Your task to perform on an android device: Open Google Chrome and open the bookmarks view Image 0: 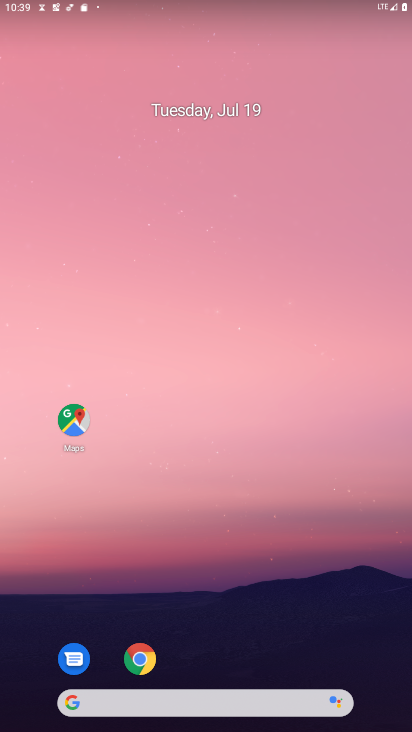
Step 0: drag from (195, 666) to (328, 77)
Your task to perform on an android device: Open Google Chrome and open the bookmarks view Image 1: 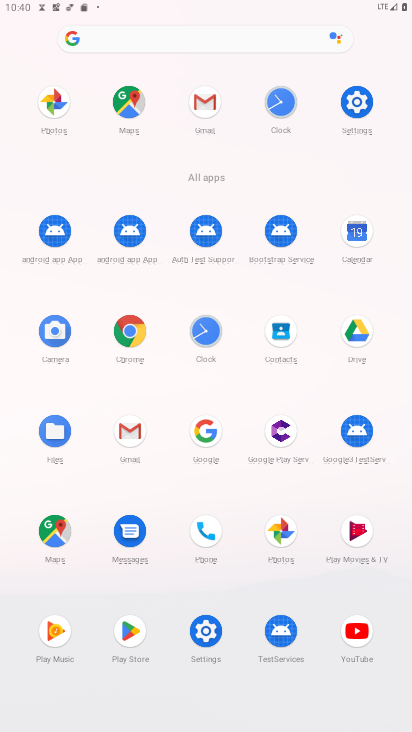
Step 1: click (126, 328)
Your task to perform on an android device: Open Google Chrome and open the bookmarks view Image 2: 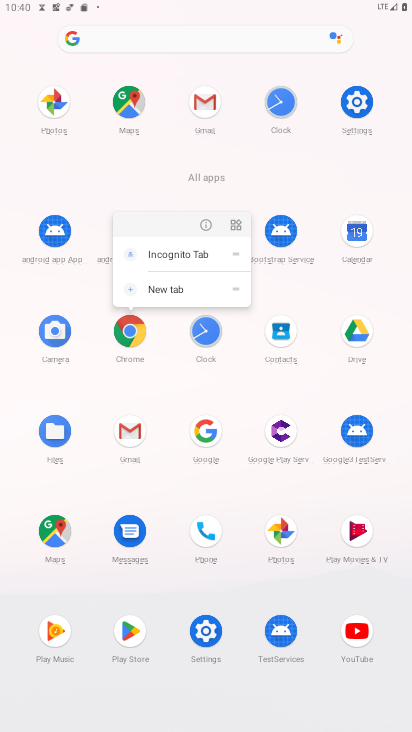
Step 2: click (203, 224)
Your task to perform on an android device: Open Google Chrome and open the bookmarks view Image 3: 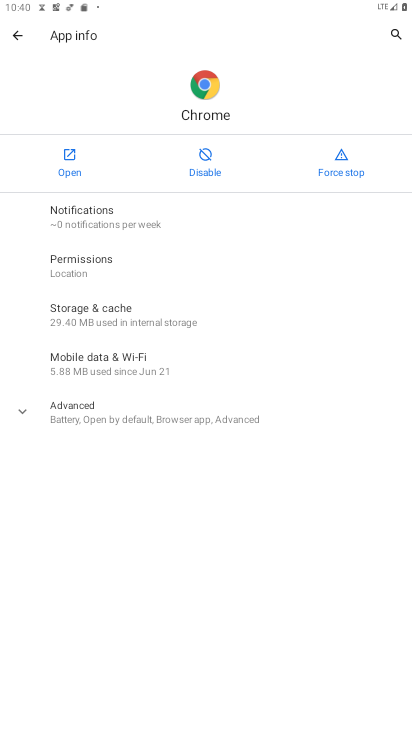
Step 3: click (67, 161)
Your task to perform on an android device: Open Google Chrome and open the bookmarks view Image 4: 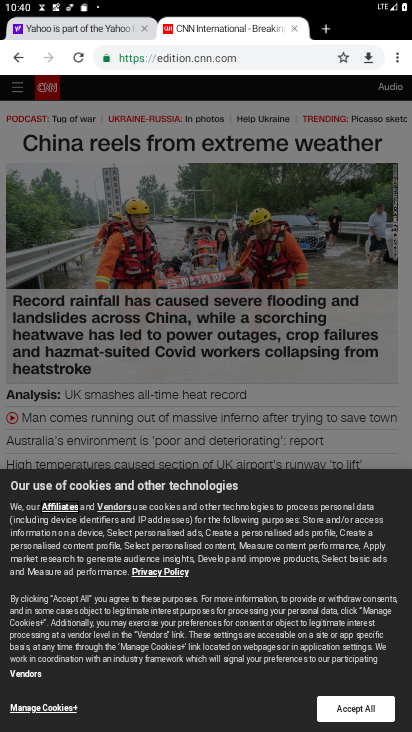
Step 4: task complete